Your task to perform on an android device: add a contact in the contacts app Image 0: 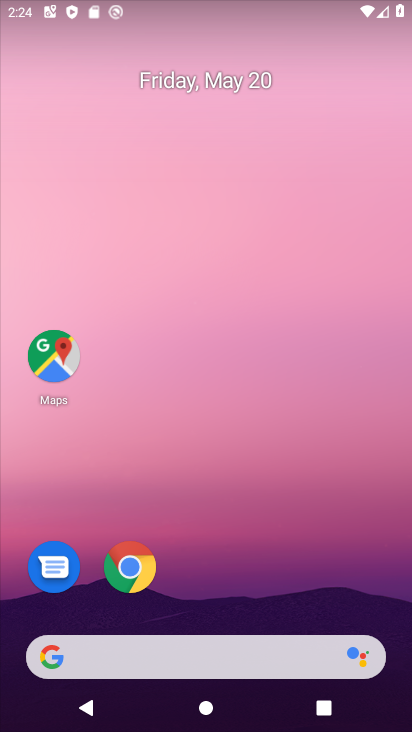
Step 0: drag from (252, 610) to (221, 158)
Your task to perform on an android device: add a contact in the contacts app Image 1: 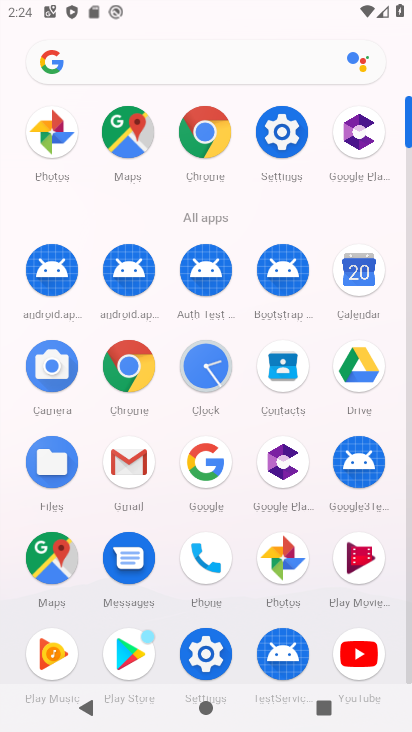
Step 1: click (274, 362)
Your task to perform on an android device: add a contact in the contacts app Image 2: 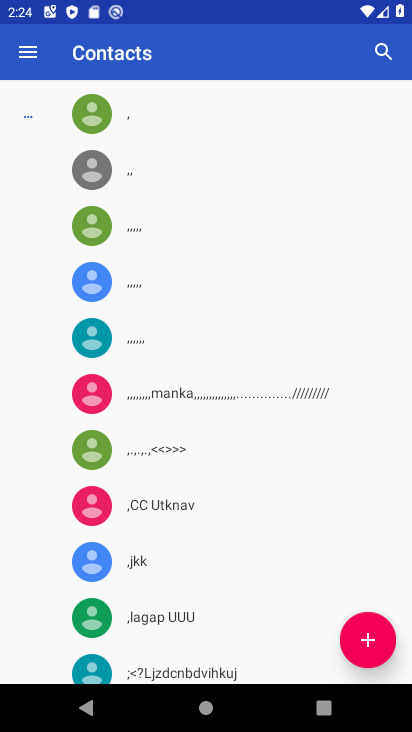
Step 2: click (366, 637)
Your task to perform on an android device: add a contact in the contacts app Image 3: 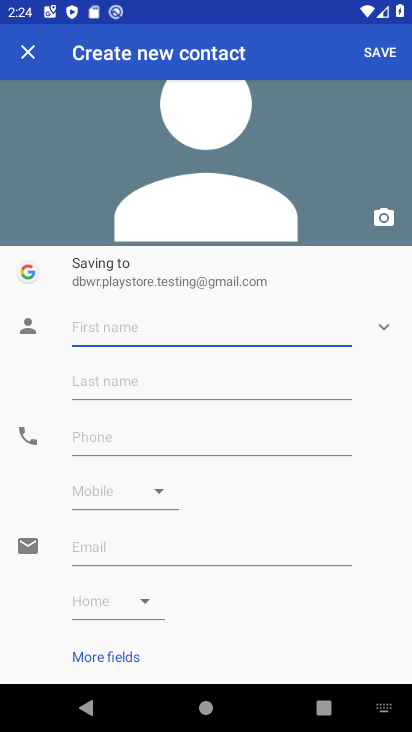
Step 3: click (107, 325)
Your task to perform on an android device: add a contact in the contacts app Image 4: 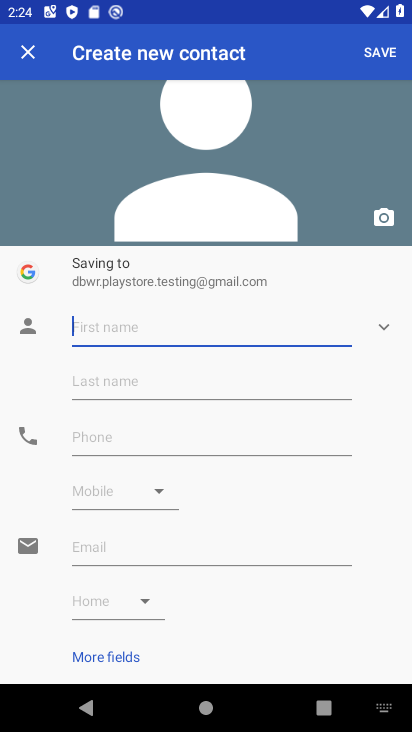
Step 4: type "hjbhb"
Your task to perform on an android device: add a contact in the contacts app Image 5: 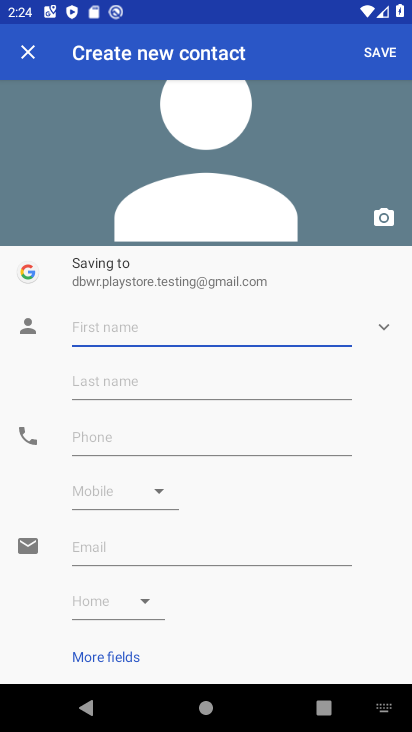
Step 5: click (313, 430)
Your task to perform on an android device: add a contact in the contacts app Image 6: 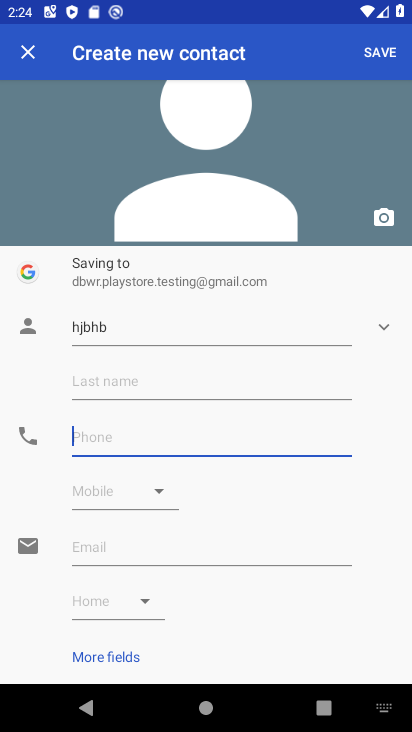
Step 6: type "879697798"
Your task to perform on an android device: add a contact in the contacts app Image 7: 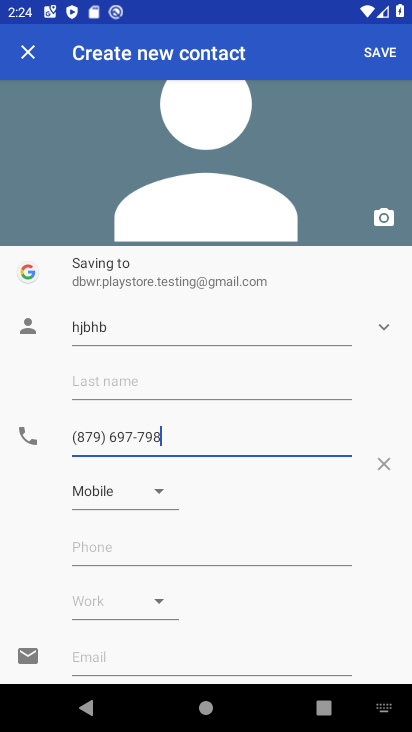
Step 7: task complete